Your task to perform on an android device: Show the shopping cart on costco. Image 0: 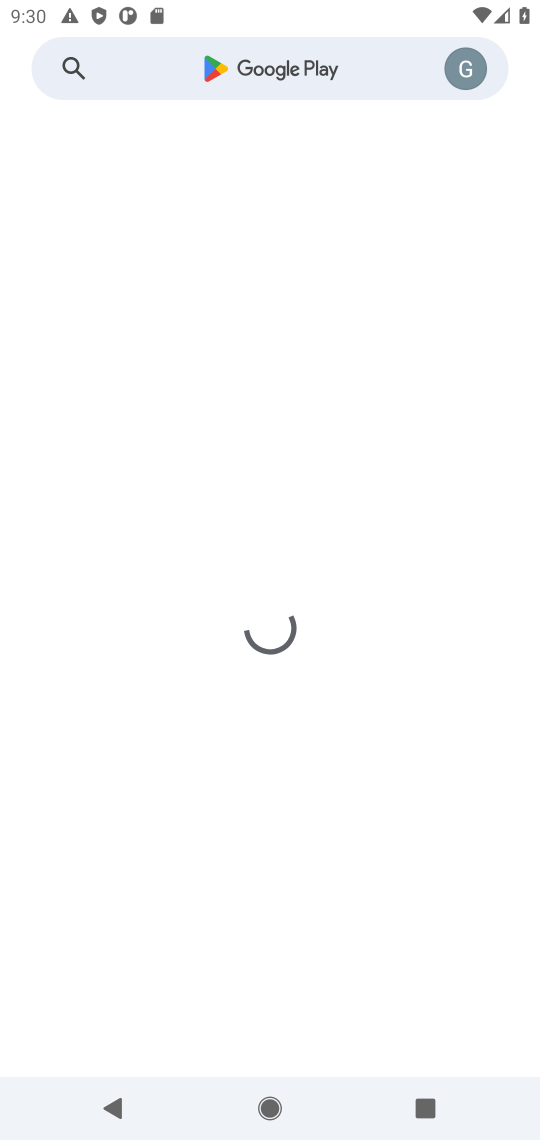
Step 0: press home button
Your task to perform on an android device: Show the shopping cart on costco. Image 1: 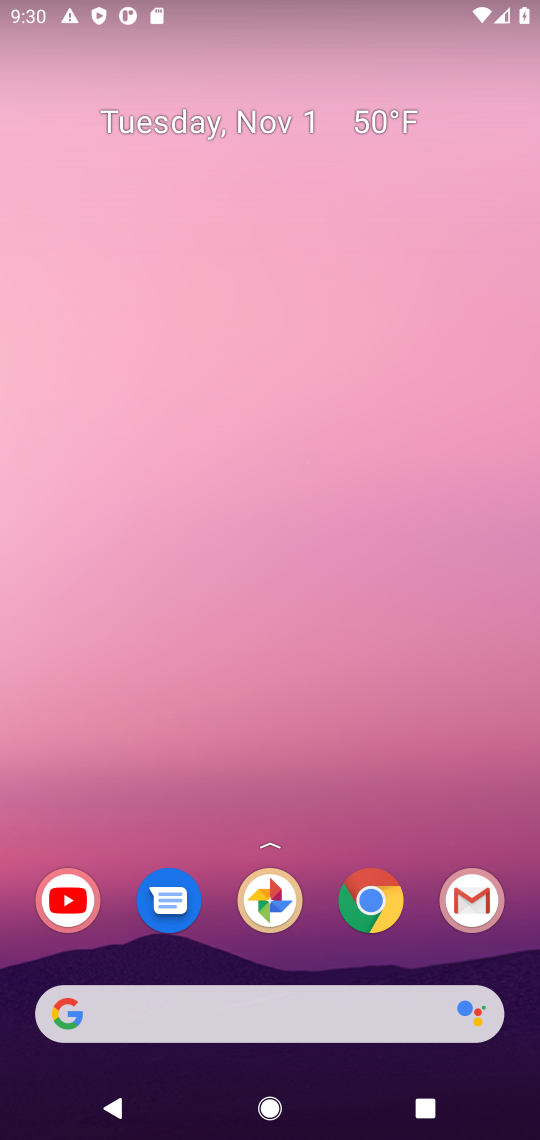
Step 1: click (378, 887)
Your task to perform on an android device: Show the shopping cart on costco. Image 2: 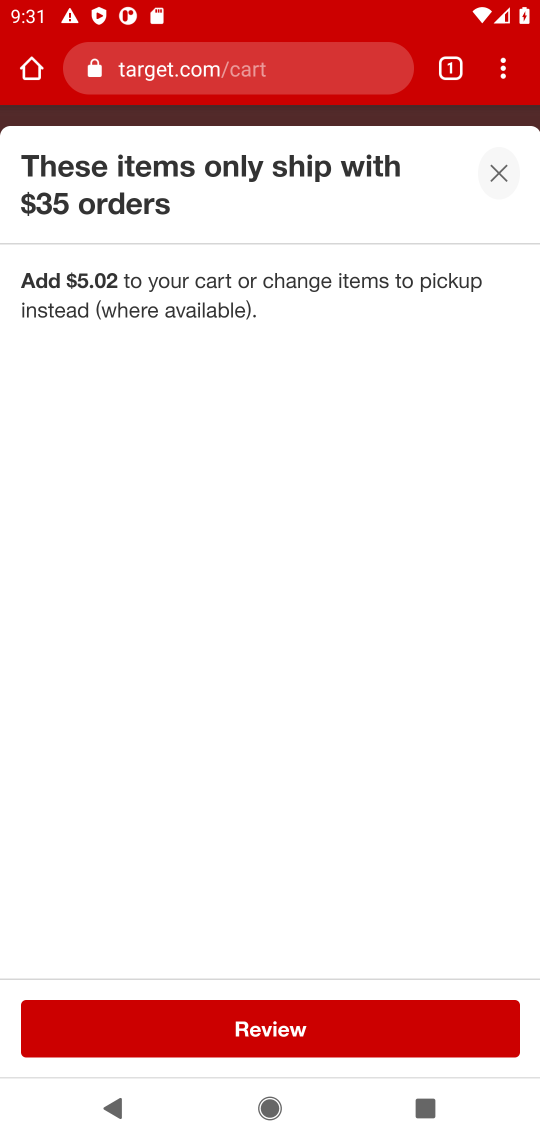
Step 2: click (200, 73)
Your task to perform on an android device: Show the shopping cart on costco. Image 3: 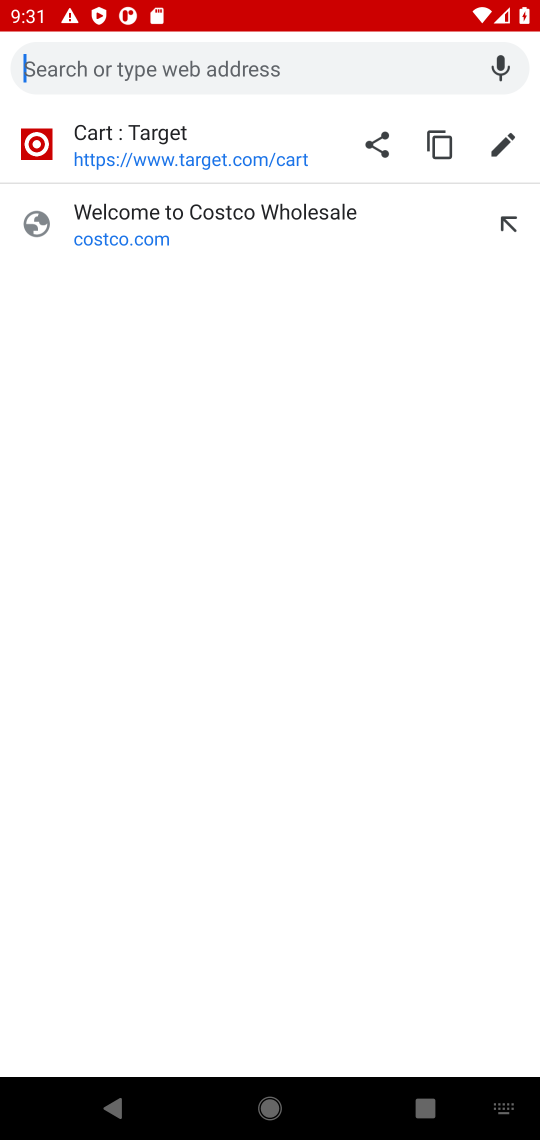
Step 3: click (85, 200)
Your task to perform on an android device: Show the shopping cart on costco. Image 4: 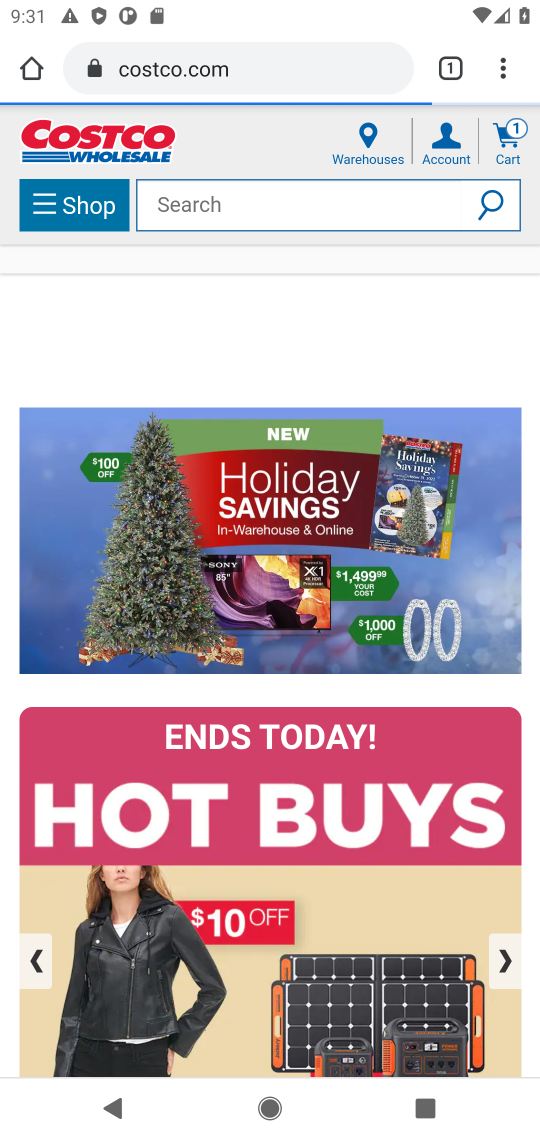
Step 4: click (516, 171)
Your task to perform on an android device: Show the shopping cart on costco. Image 5: 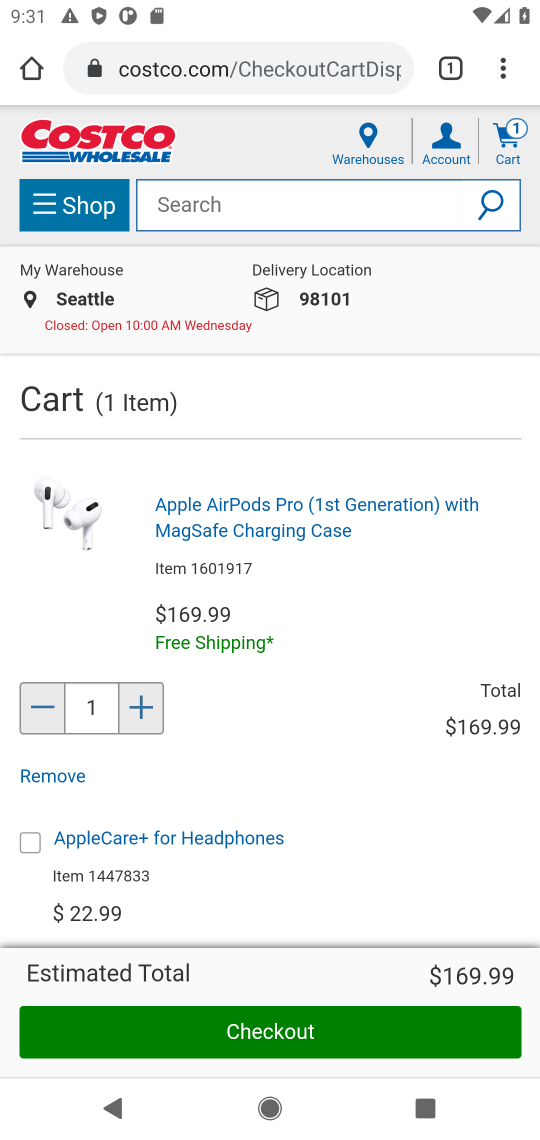
Step 5: task complete